Your task to perform on an android device: delete location history Image 0: 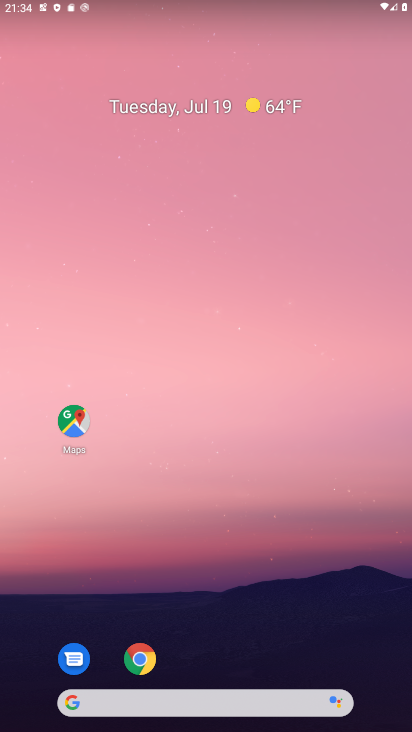
Step 0: click (81, 430)
Your task to perform on an android device: delete location history Image 1: 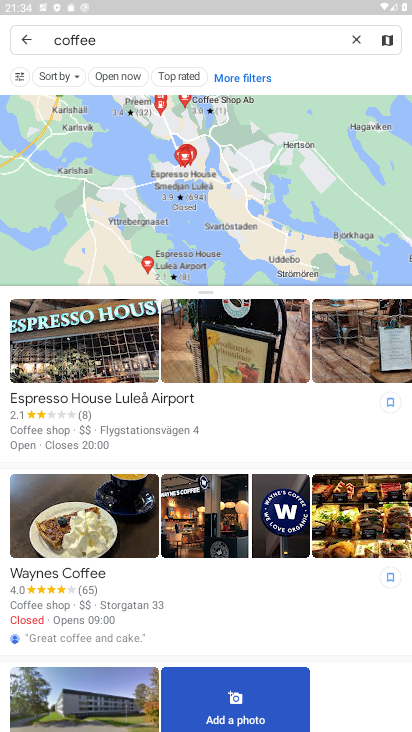
Step 1: click (28, 40)
Your task to perform on an android device: delete location history Image 2: 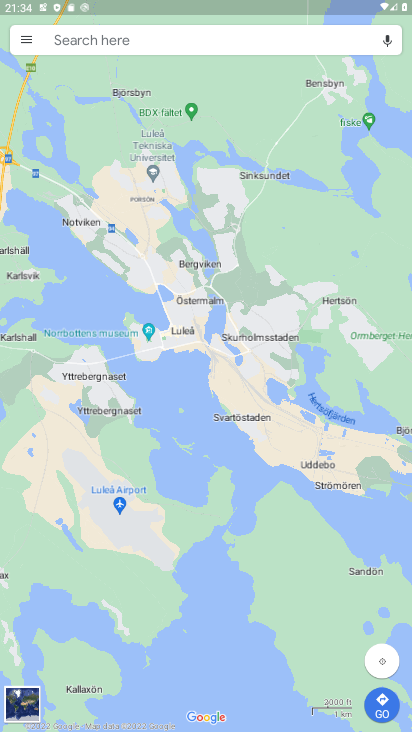
Step 2: click (28, 40)
Your task to perform on an android device: delete location history Image 3: 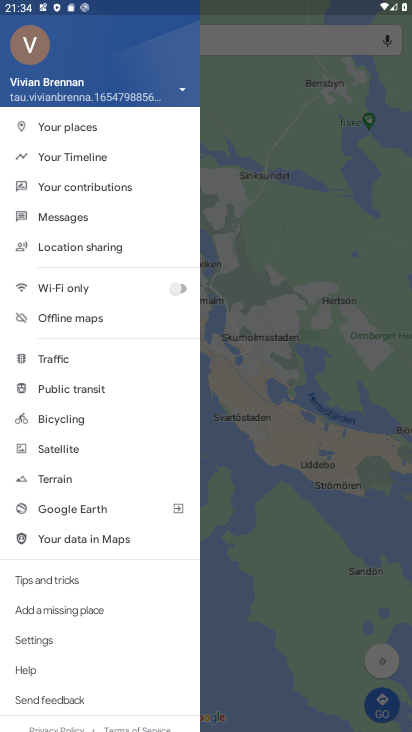
Step 3: click (59, 643)
Your task to perform on an android device: delete location history Image 4: 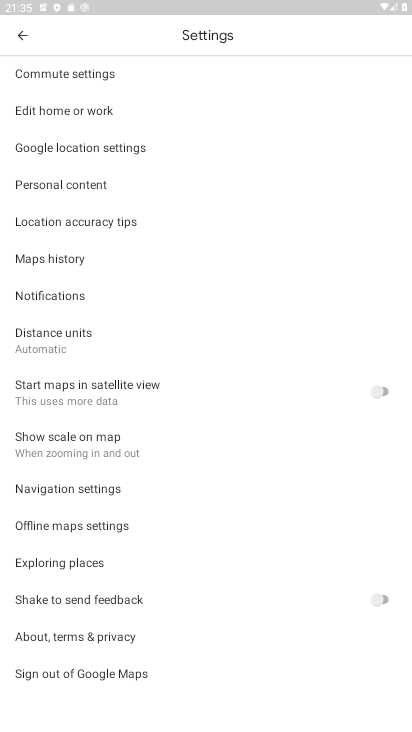
Step 4: click (36, 41)
Your task to perform on an android device: delete location history Image 5: 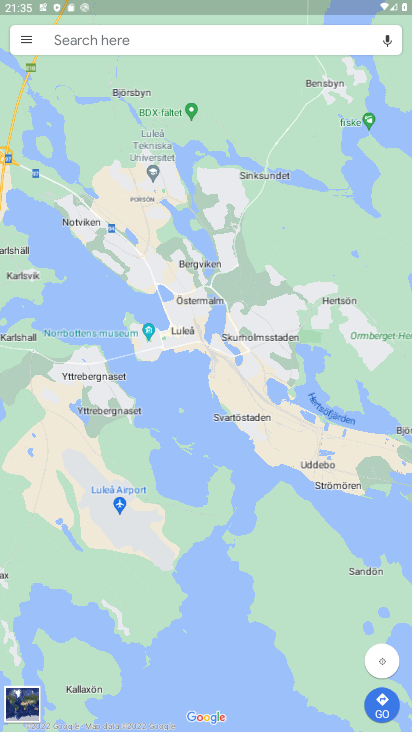
Step 5: click (36, 41)
Your task to perform on an android device: delete location history Image 6: 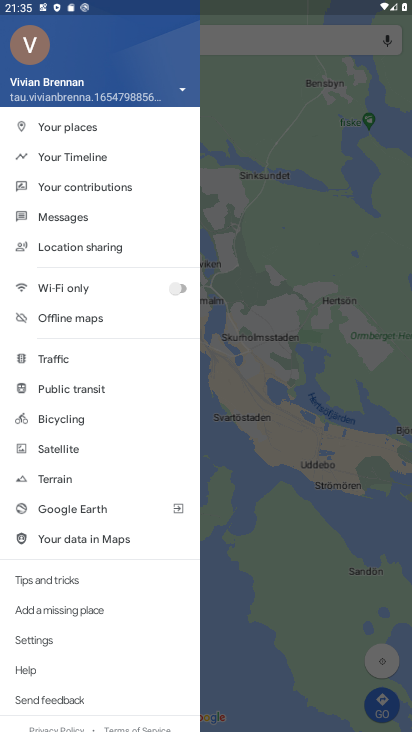
Step 6: click (85, 166)
Your task to perform on an android device: delete location history Image 7: 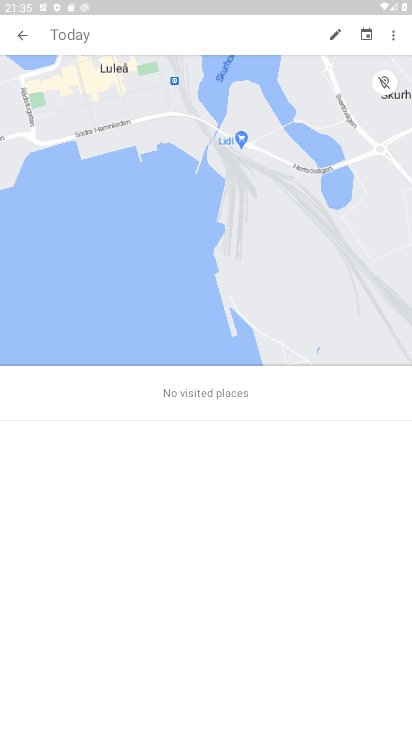
Step 7: click (383, 47)
Your task to perform on an android device: delete location history Image 8: 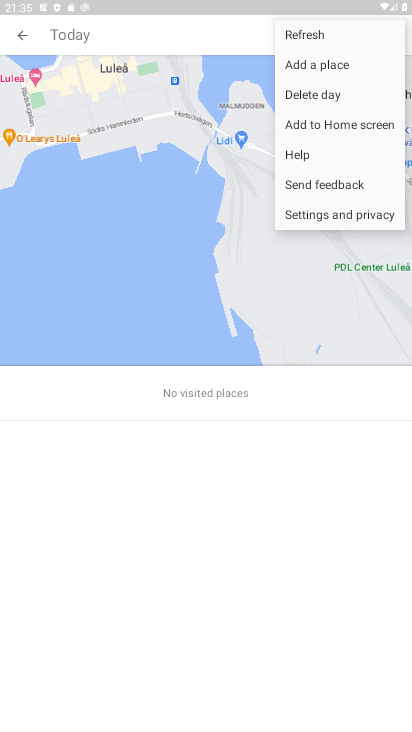
Step 8: click (311, 226)
Your task to perform on an android device: delete location history Image 9: 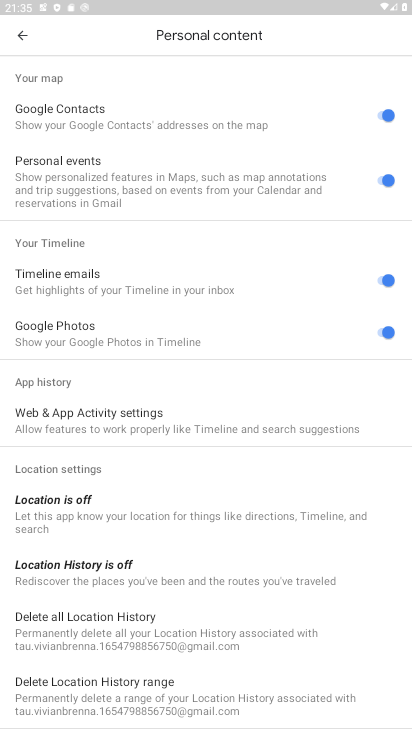
Step 9: click (118, 629)
Your task to perform on an android device: delete location history Image 10: 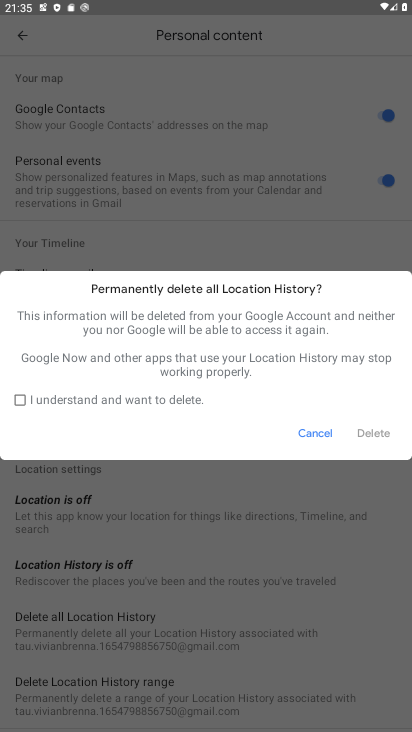
Step 10: click (22, 406)
Your task to perform on an android device: delete location history Image 11: 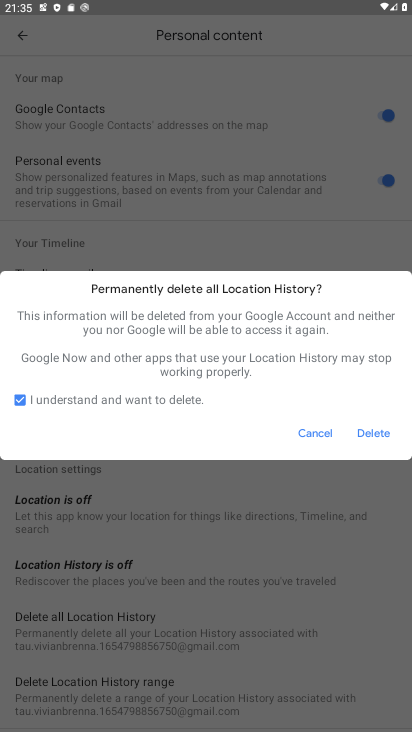
Step 11: click (389, 438)
Your task to perform on an android device: delete location history Image 12: 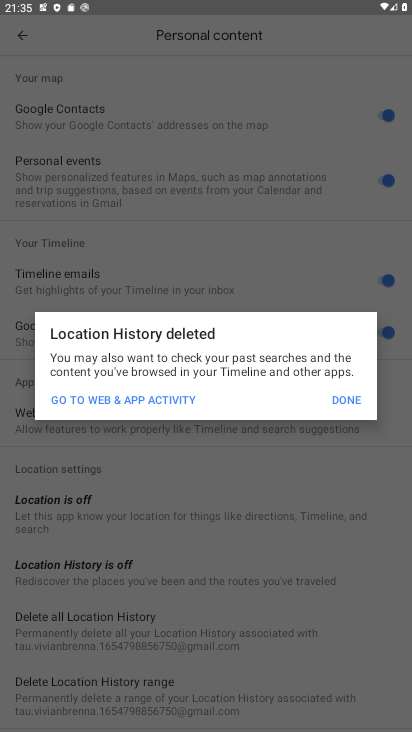
Step 12: click (357, 396)
Your task to perform on an android device: delete location history Image 13: 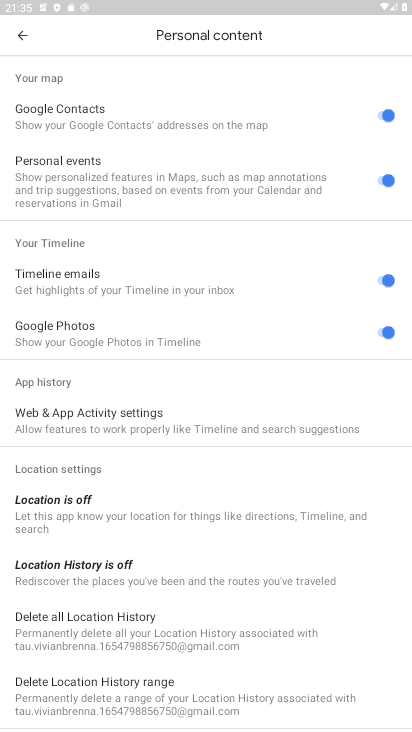
Step 13: task complete